Your task to perform on an android device: Is it going to rain today? Image 0: 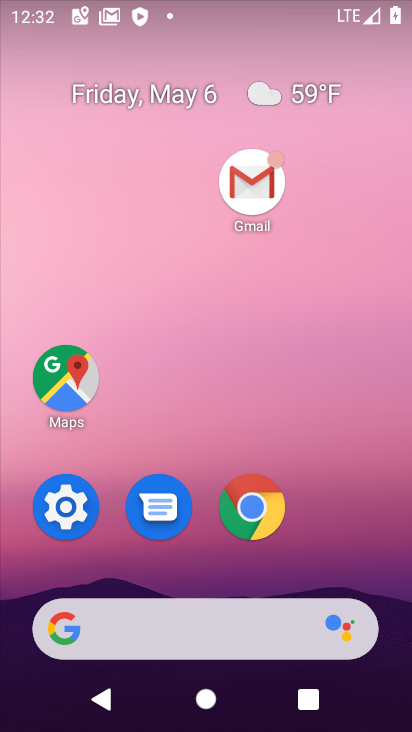
Step 0: click (302, 86)
Your task to perform on an android device: Is it going to rain today? Image 1: 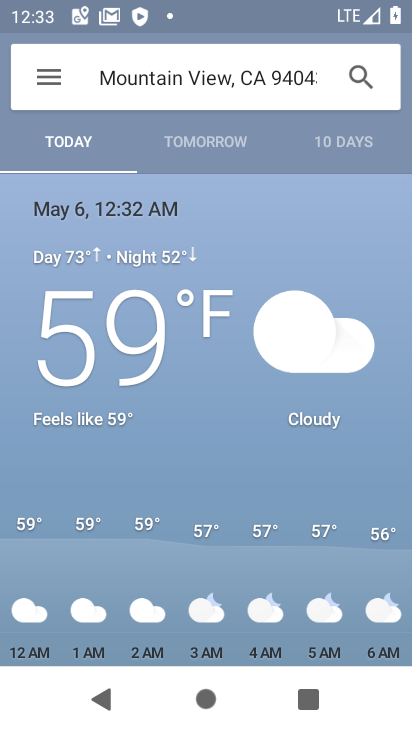
Step 1: task complete